Your task to perform on an android device: Open calendar and show me the first week of next month Image 0: 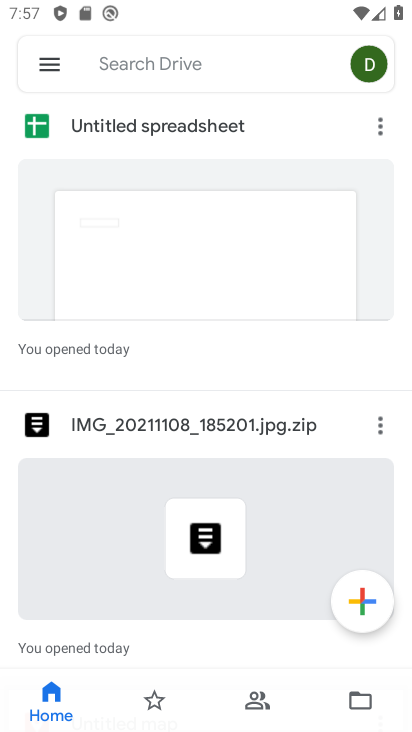
Step 0: press back button
Your task to perform on an android device: Open calendar and show me the first week of next month Image 1: 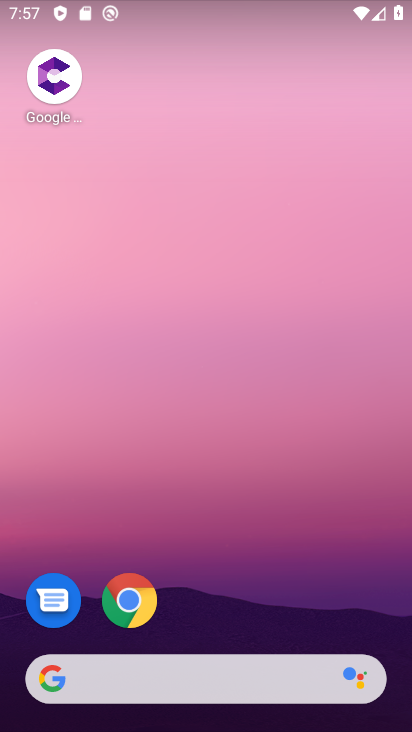
Step 1: drag from (15, 457) to (163, 135)
Your task to perform on an android device: Open calendar and show me the first week of next month Image 2: 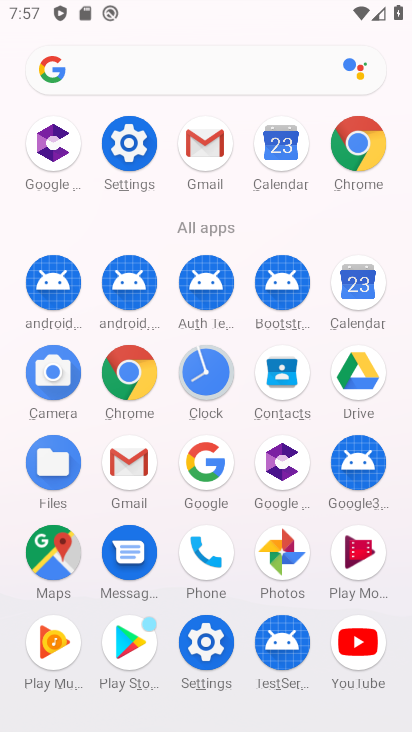
Step 2: click (281, 148)
Your task to perform on an android device: Open calendar and show me the first week of next month Image 3: 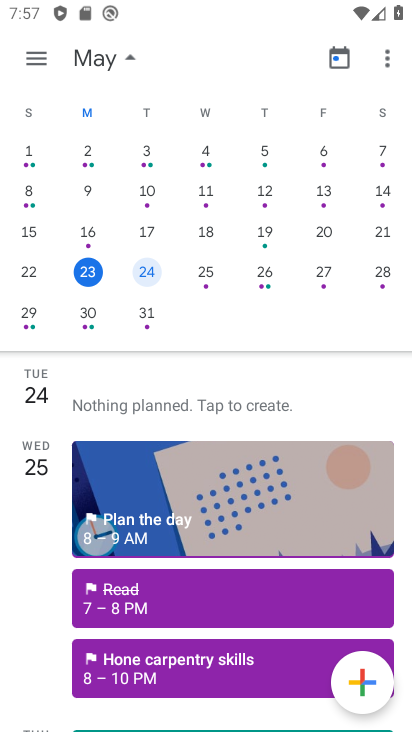
Step 3: drag from (386, 200) to (17, 189)
Your task to perform on an android device: Open calendar and show me the first week of next month Image 4: 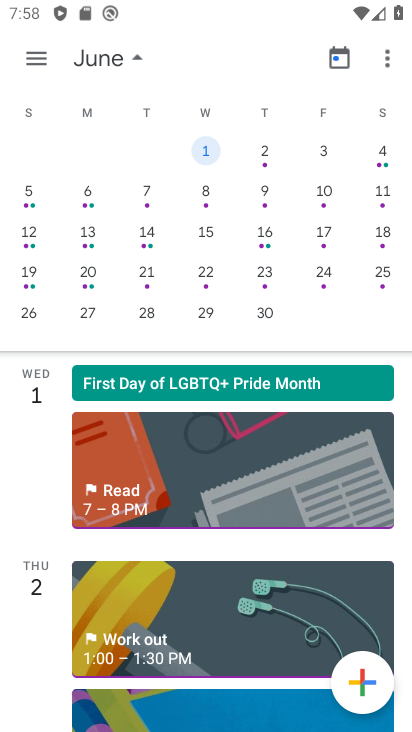
Step 4: click (256, 154)
Your task to perform on an android device: Open calendar and show me the first week of next month Image 5: 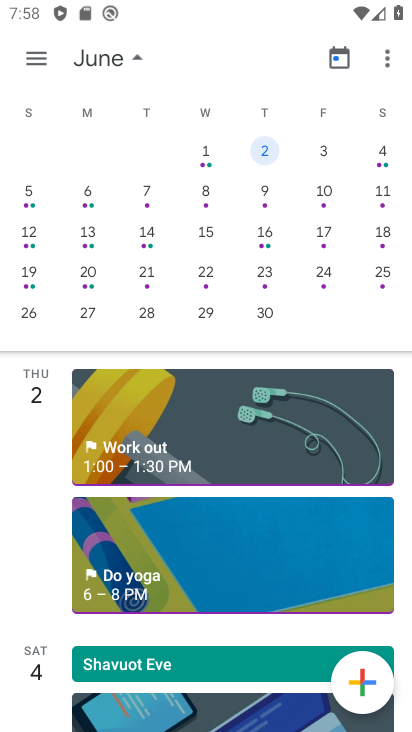
Step 5: click (334, 150)
Your task to perform on an android device: Open calendar and show me the first week of next month Image 6: 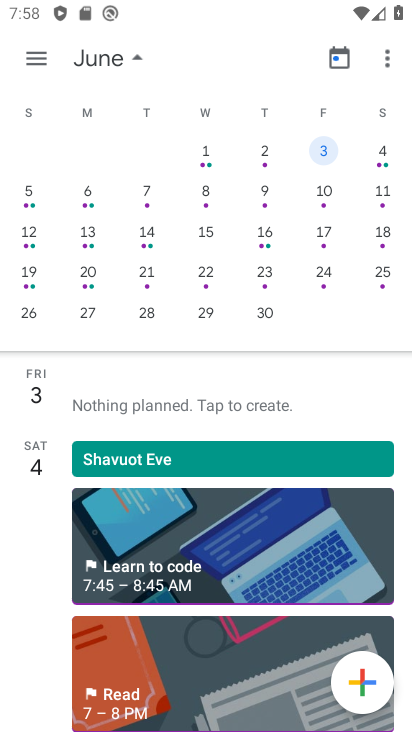
Step 6: click (385, 150)
Your task to perform on an android device: Open calendar and show me the first week of next month Image 7: 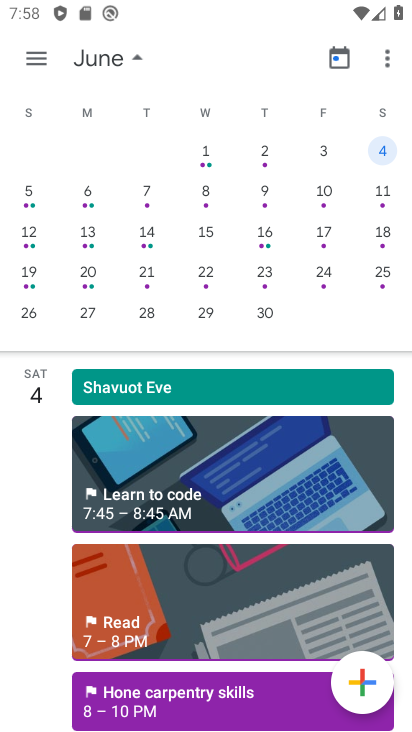
Step 7: task complete